Your task to perform on an android device: turn off notifications in google photos Image 0: 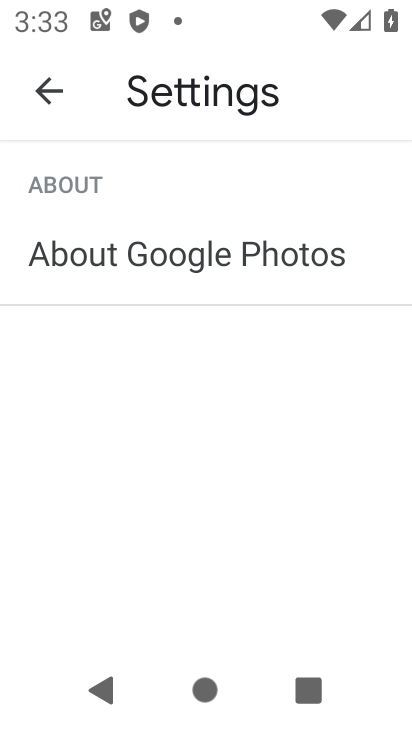
Step 0: press home button
Your task to perform on an android device: turn off notifications in google photos Image 1: 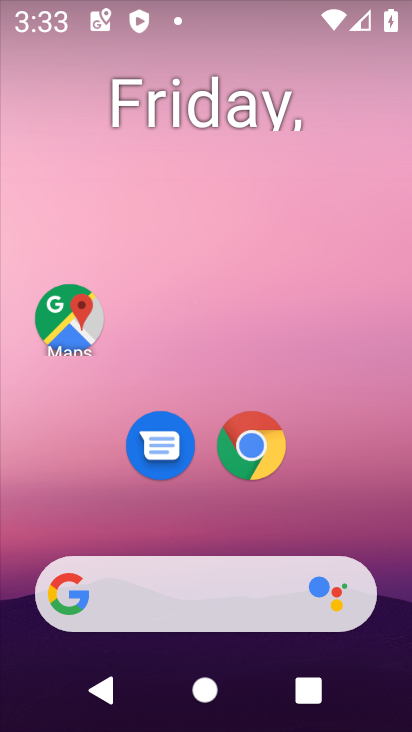
Step 1: drag from (203, 528) to (259, 41)
Your task to perform on an android device: turn off notifications in google photos Image 2: 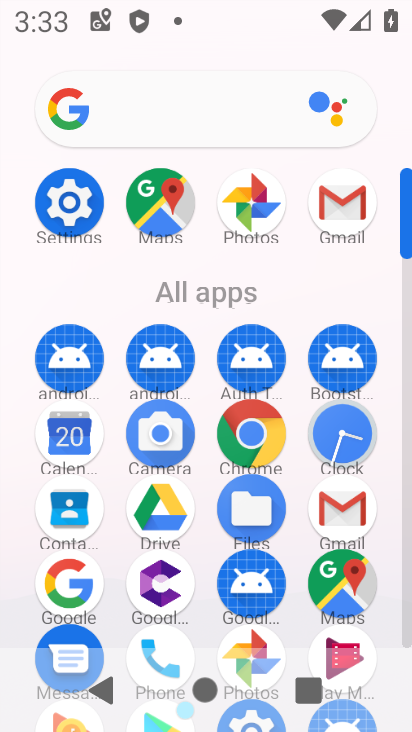
Step 2: drag from (209, 529) to (239, 245)
Your task to perform on an android device: turn off notifications in google photos Image 3: 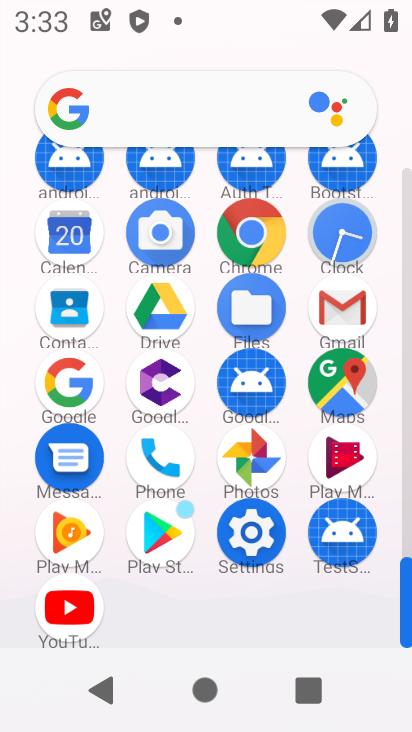
Step 3: click (245, 477)
Your task to perform on an android device: turn off notifications in google photos Image 4: 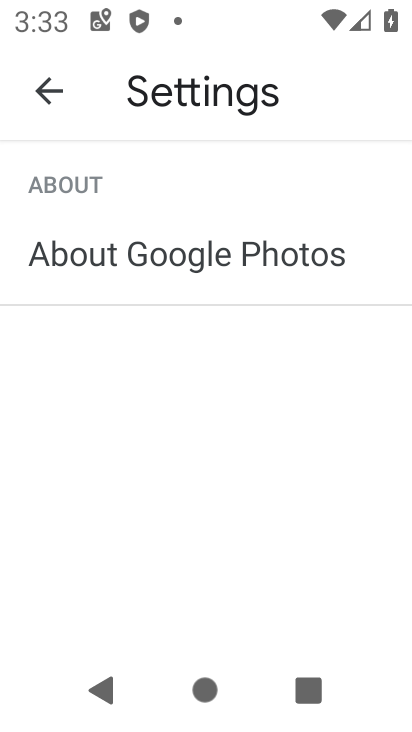
Step 4: click (41, 84)
Your task to perform on an android device: turn off notifications in google photos Image 5: 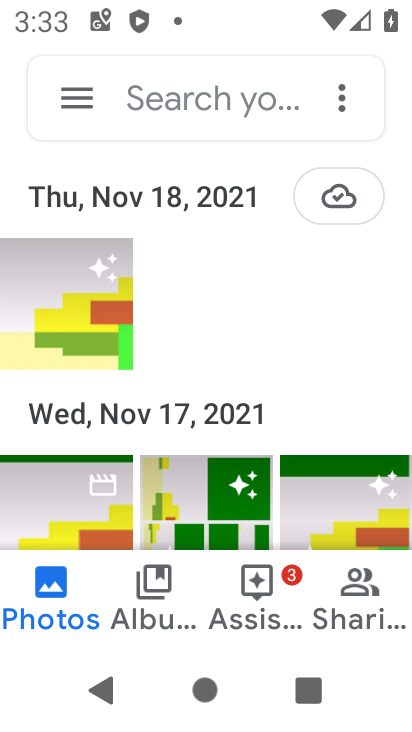
Step 5: click (73, 98)
Your task to perform on an android device: turn off notifications in google photos Image 6: 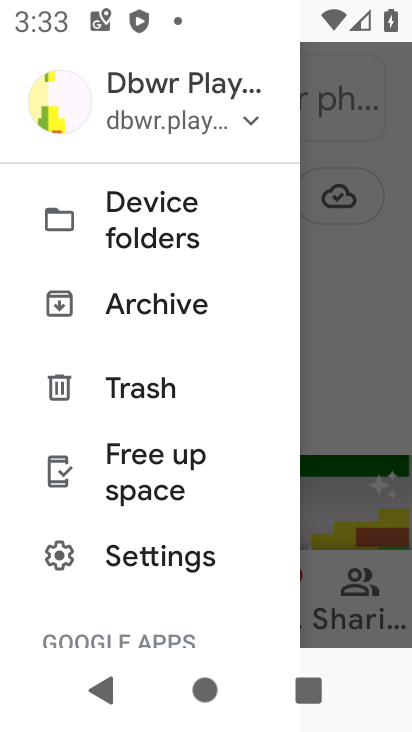
Step 6: drag from (164, 535) to (161, 387)
Your task to perform on an android device: turn off notifications in google photos Image 7: 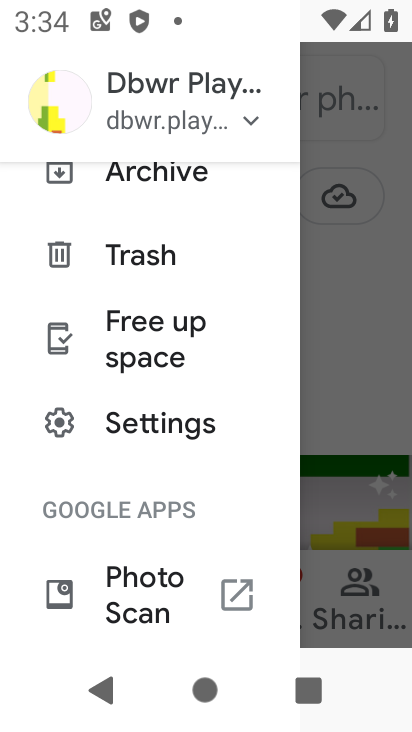
Step 7: click (149, 441)
Your task to perform on an android device: turn off notifications in google photos Image 8: 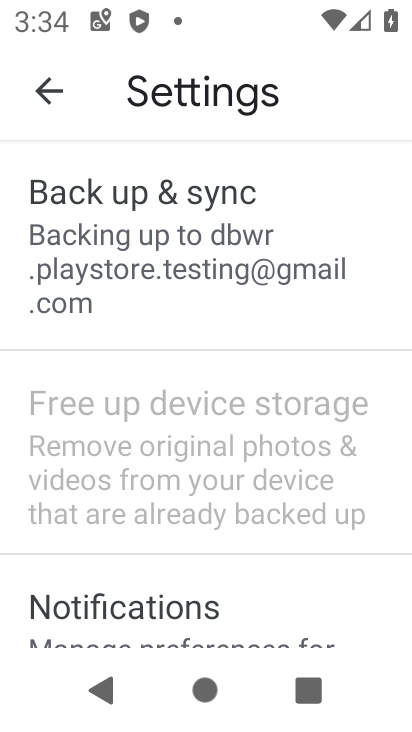
Step 8: drag from (175, 446) to (187, 324)
Your task to perform on an android device: turn off notifications in google photos Image 9: 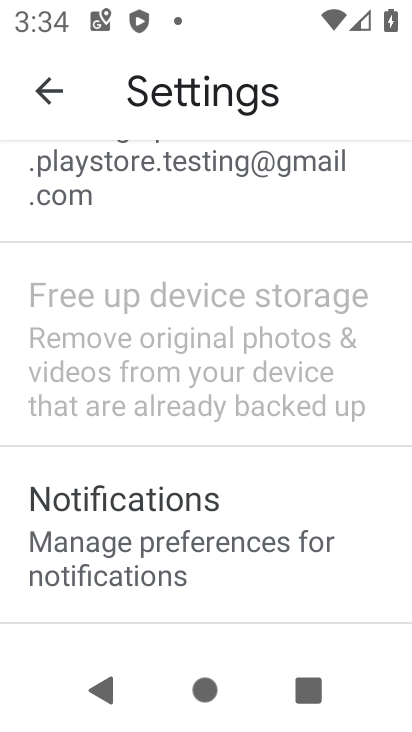
Step 9: click (123, 549)
Your task to perform on an android device: turn off notifications in google photos Image 10: 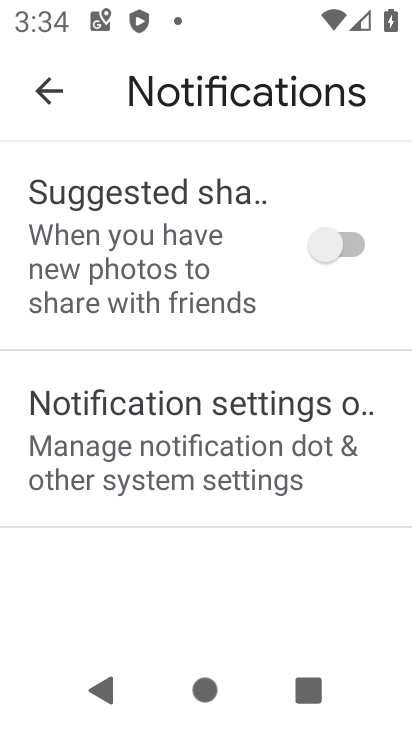
Step 10: click (175, 425)
Your task to perform on an android device: turn off notifications in google photos Image 11: 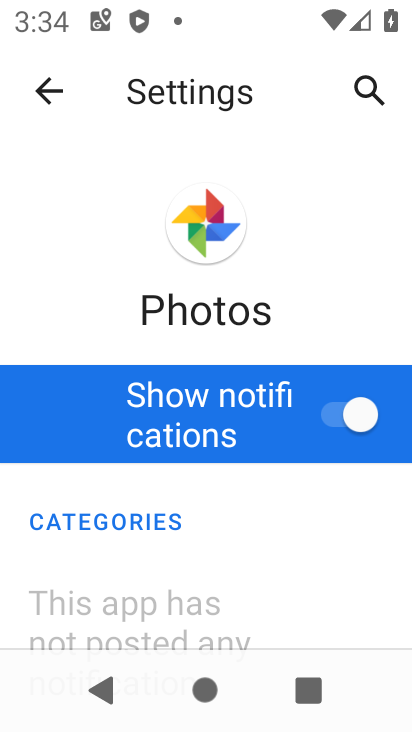
Step 11: click (313, 411)
Your task to perform on an android device: turn off notifications in google photos Image 12: 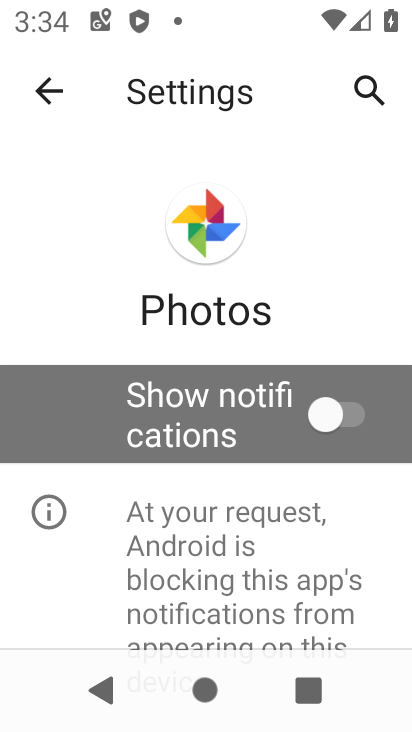
Step 12: task complete